Your task to perform on an android device: What's the weather going to be this weekend? Image 0: 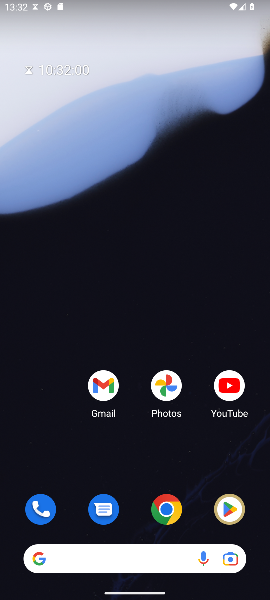
Step 0: press home button
Your task to perform on an android device: What's the weather going to be this weekend? Image 1: 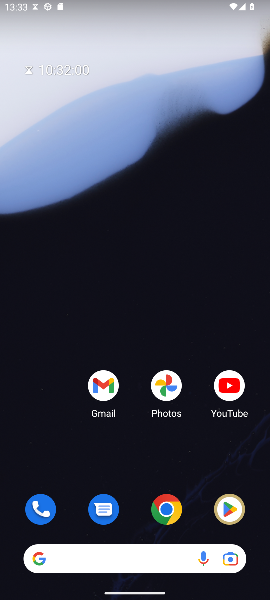
Step 1: drag from (120, 529) to (157, 58)
Your task to perform on an android device: What's the weather going to be this weekend? Image 2: 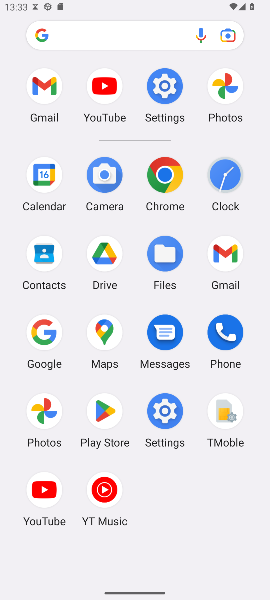
Step 2: click (36, 338)
Your task to perform on an android device: What's the weather going to be this weekend? Image 3: 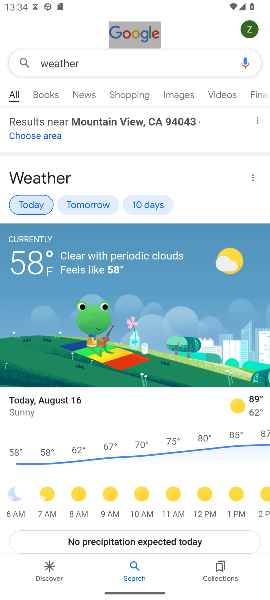
Step 3: click (105, 64)
Your task to perform on an android device: What's the weather going to be this weekend? Image 4: 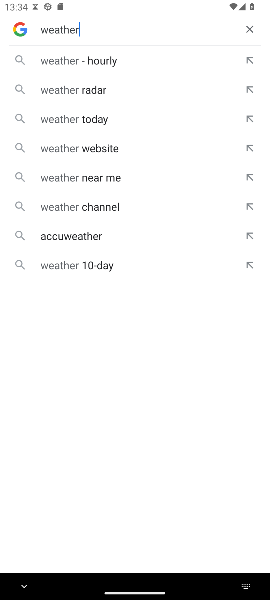
Step 4: click (247, 28)
Your task to perform on an android device: What's the weather going to be this weekend? Image 5: 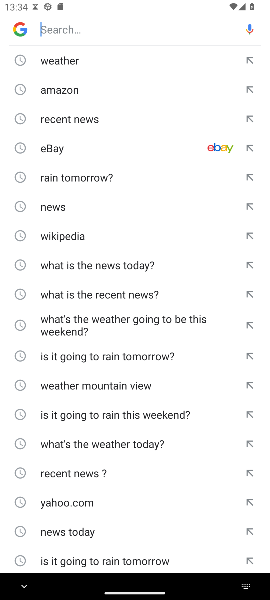
Step 5: type " weather going to be this weekend?"
Your task to perform on an android device: What's the weather going to be this weekend? Image 6: 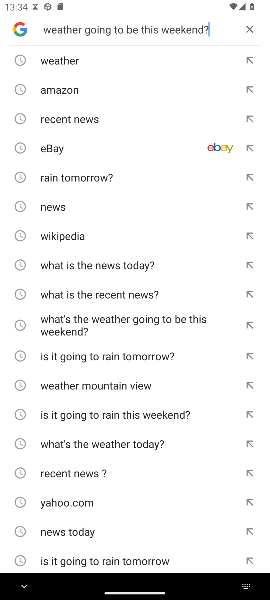
Step 6: press enter
Your task to perform on an android device: What's the weather going to be this weekend? Image 7: 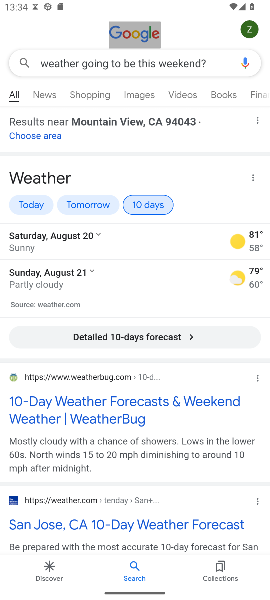
Step 7: task complete